Your task to perform on an android device: change alarm snooze length Image 0: 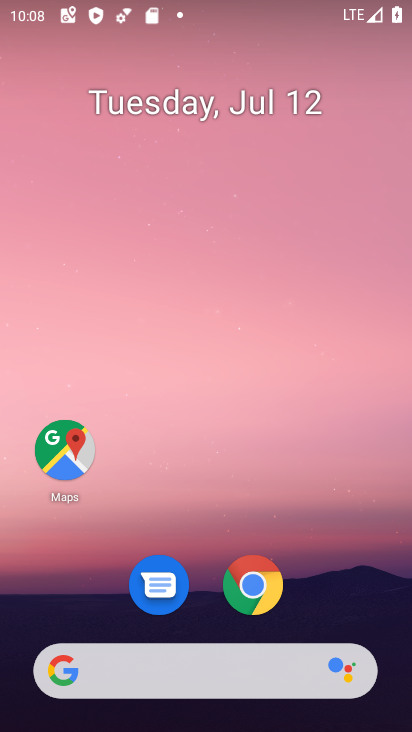
Step 0: drag from (234, 639) to (358, 122)
Your task to perform on an android device: change alarm snooze length Image 1: 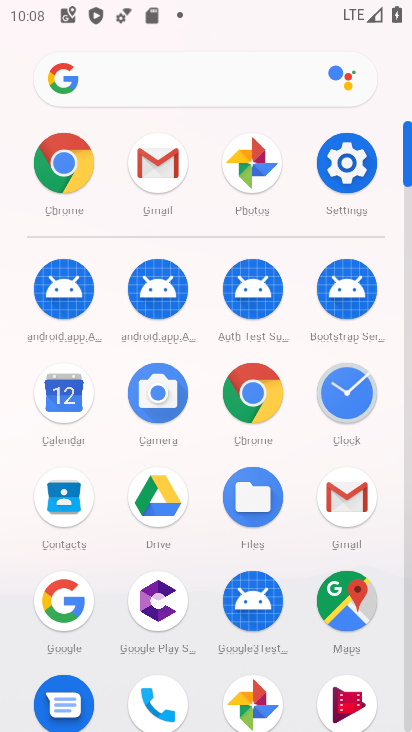
Step 1: click (348, 407)
Your task to perform on an android device: change alarm snooze length Image 2: 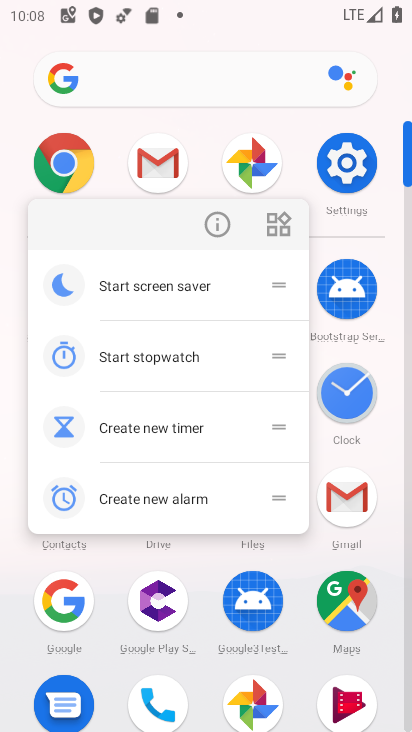
Step 2: click (348, 407)
Your task to perform on an android device: change alarm snooze length Image 3: 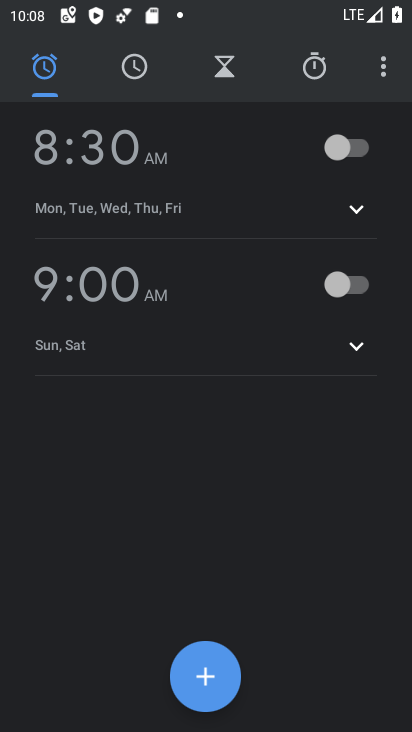
Step 3: click (383, 66)
Your task to perform on an android device: change alarm snooze length Image 4: 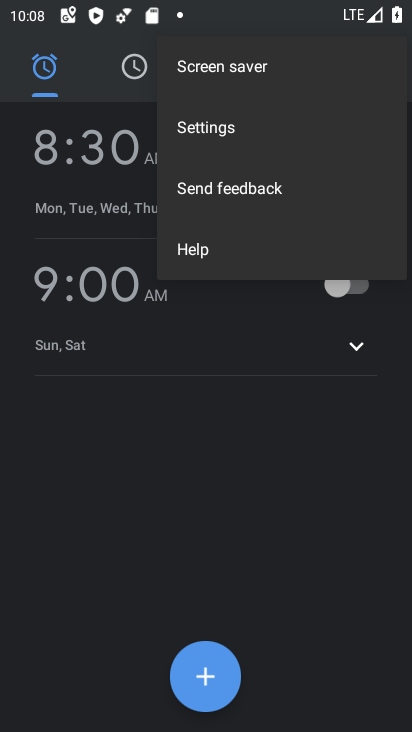
Step 4: click (228, 119)
Your task to perform on an android device: change alarm snooze length Image 5: 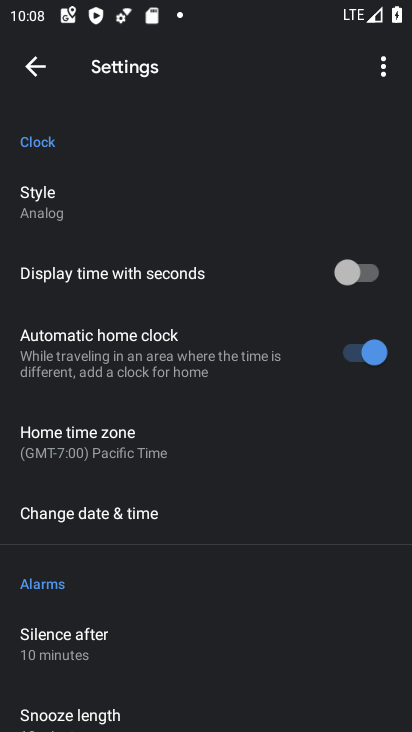
Step 5: drag from (168, 595) to (267, 276)
Your task to perform on an android device: change alarm snooze length Image 6: 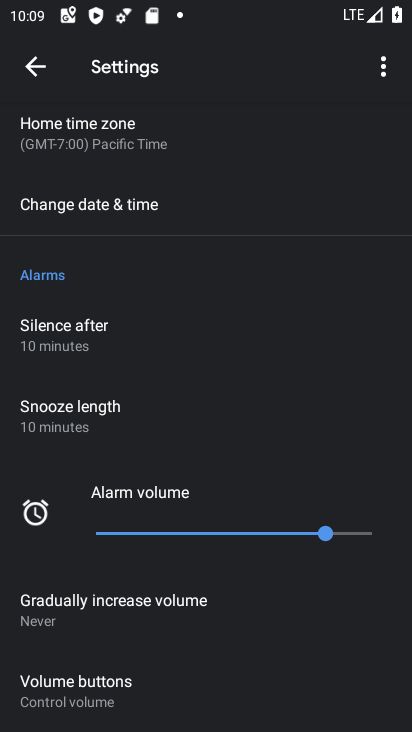
Step 6: click (102, 421)
Your task to perform on an android device: change alarm snooze length Image 7: 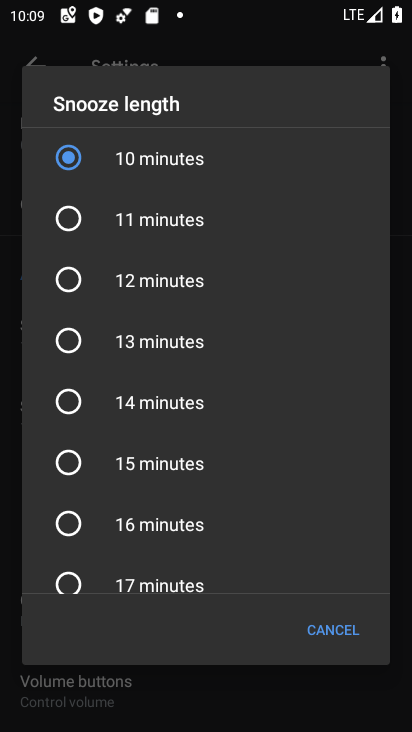
Step 7: click (69, 463)
Your task to perform on an android device: change alarm snooze length Image 8: 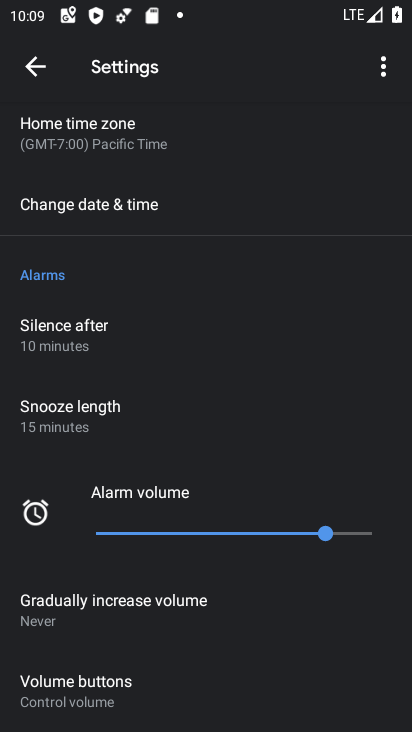
Step 8: task complete